Your task to perform on an android device: Is it going to rain tomorrow? Image 0: 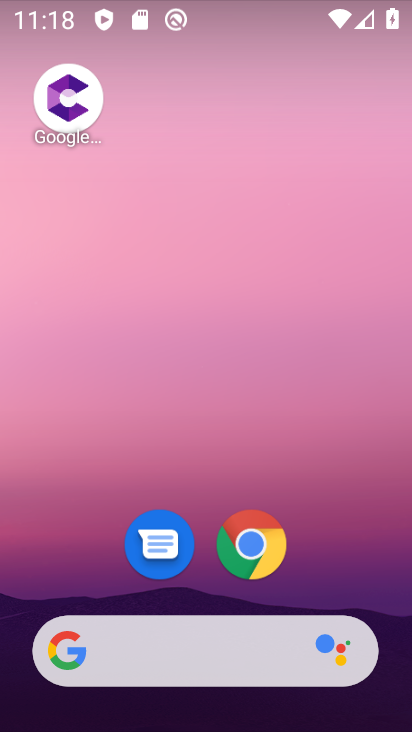
Step 0: drag from (202, 585) to (190, 2)
Your task to perform on an android device: Is it going to rain tomorrow? Image 1: 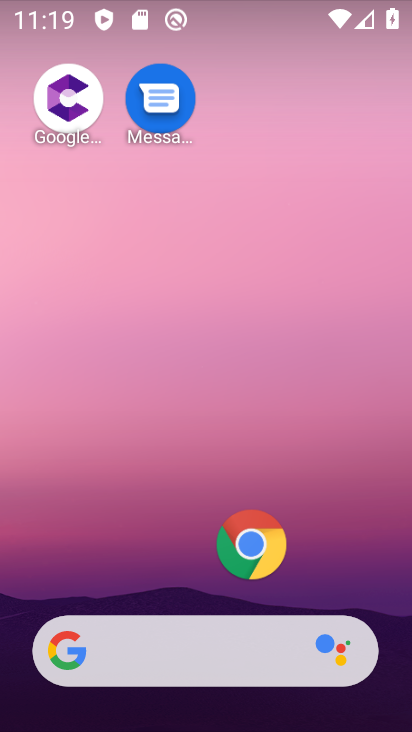
Step 1: click (215, 657)
Your task to perform on an android device: Is it going to rain tomorrow? Image 2: 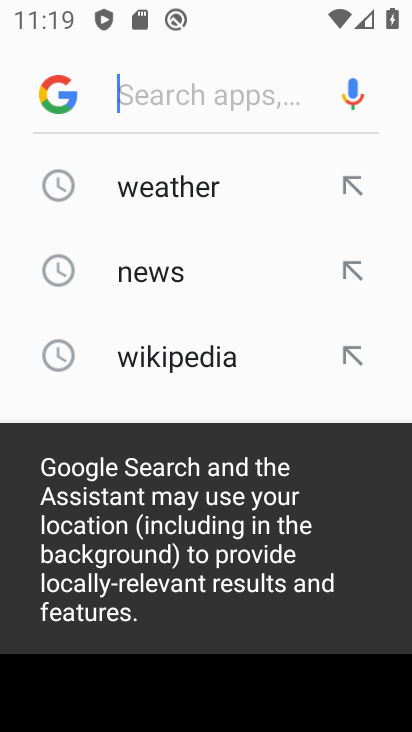
Step 2: click (110, 188)
Your task to perform on an android device: Is it going to rain tomorrow? Image 3: 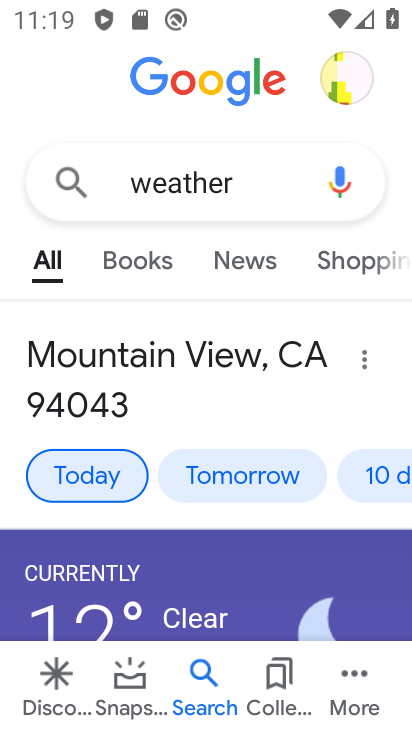
Step 3: click (248, 492)
Your task to perform on an android device: Is it going to rain tomorrow? Image 4: 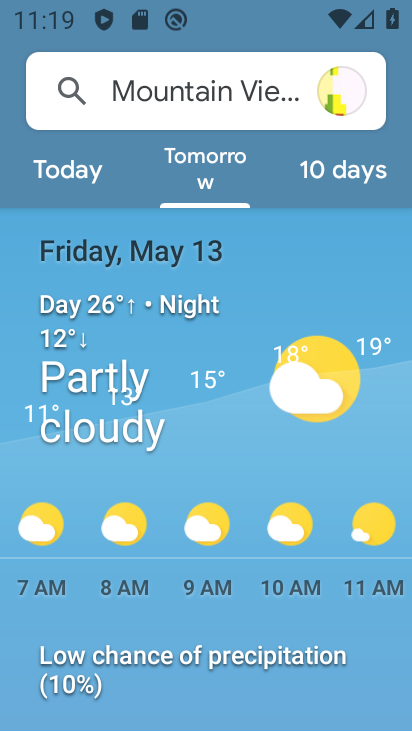
Step 4: task complete